Your task to perform on an android device: open a new tab in the chrome app Image 0: 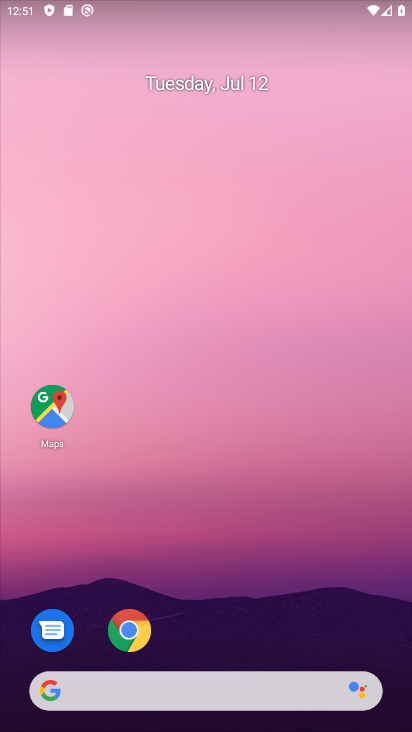
Step 0: click (128, 630)
Your task to perform on an android device: open a new tab in the chrome app Image 1: 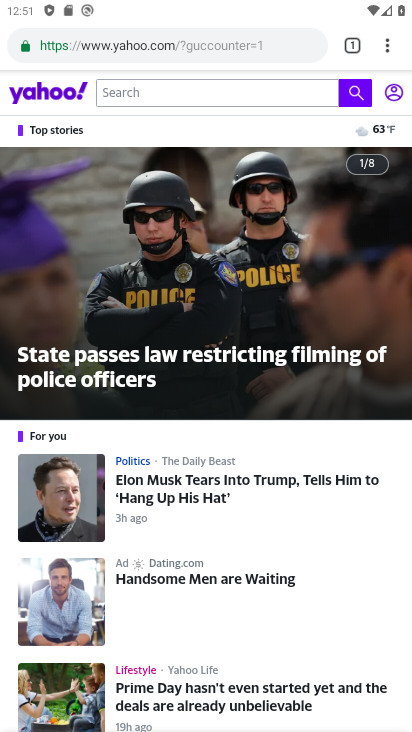
Step 1: click (384, 46)
Your task to perform on an android device: open a new tab in the chrome app Image 2: 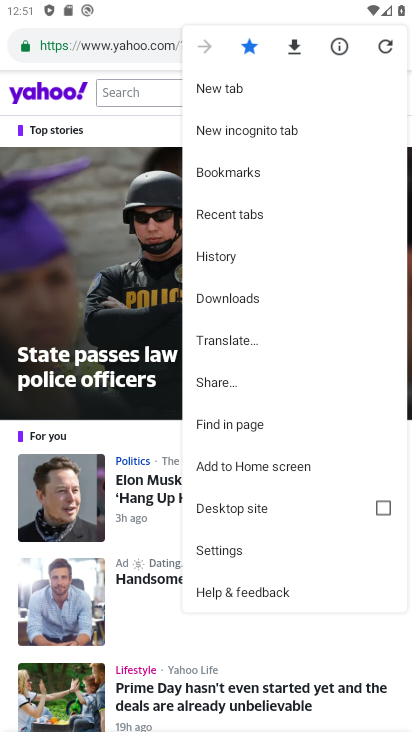
Step 2: click (222, 89)
Your task to perform on an android device: open a new tab in the chrome app Image 3: 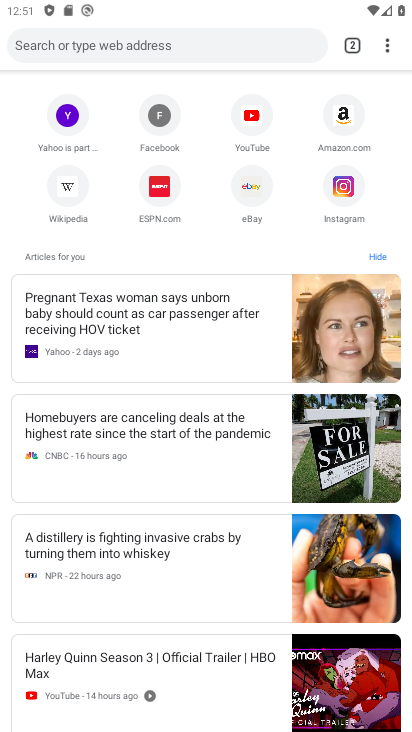
Step 3: task complete